Your task to perform on an android device: Go to settings Image 0: 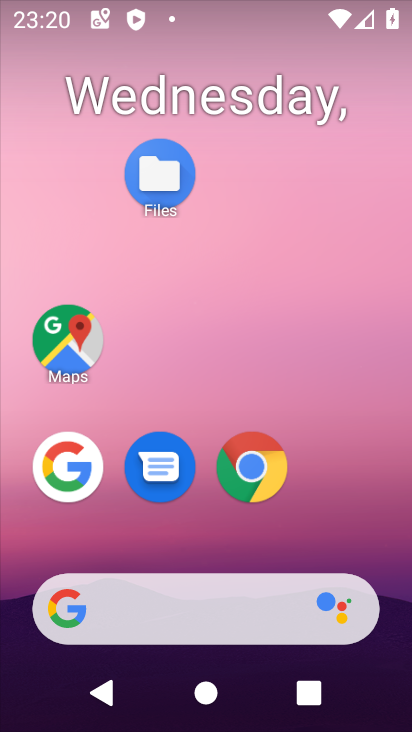
Step 0: drag from (200, 556) to (287, 30)
Your task to perform on an android device: Go to settings Image 1: 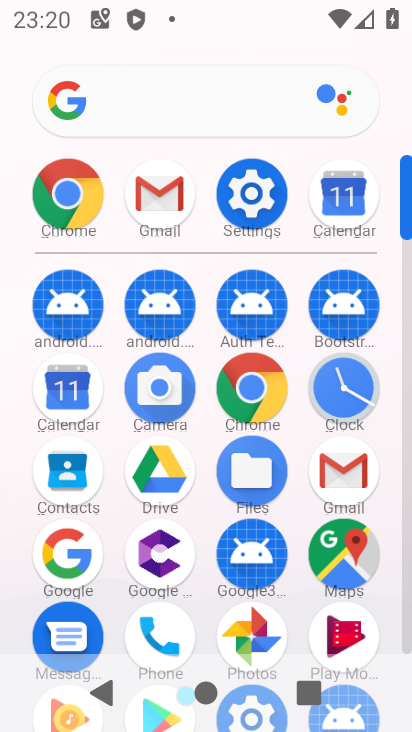
Step 1: click (273, 176)
Your task to perform on an android device: Go to settings Image 2: 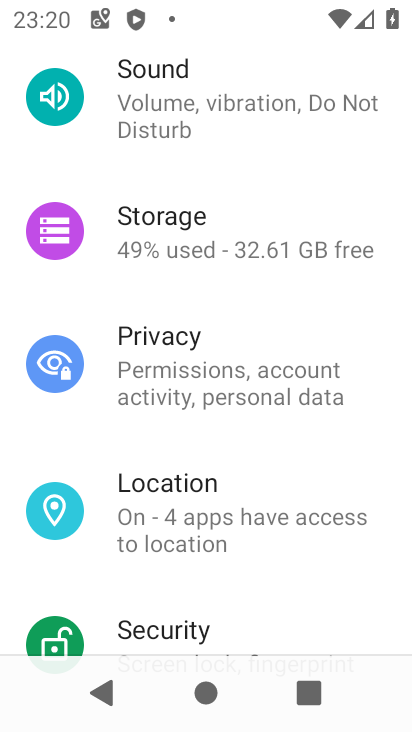
Step 2: click (273, 176)
Your task to perform on an android device: Go to settings Image 3: 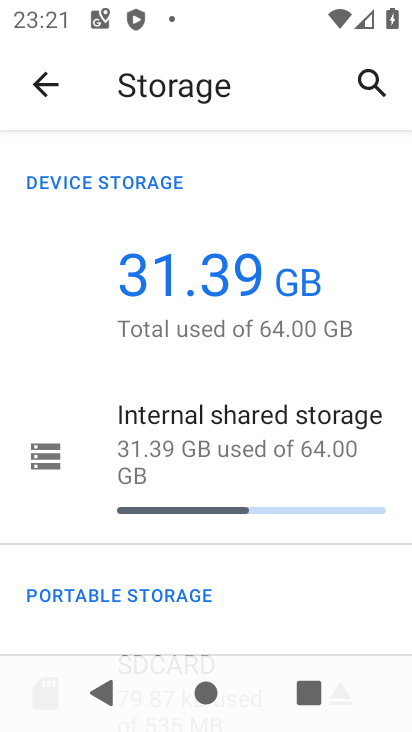
Step 3: click (49, 98)
Your task to perform on an android device: Go to settings Image 4: 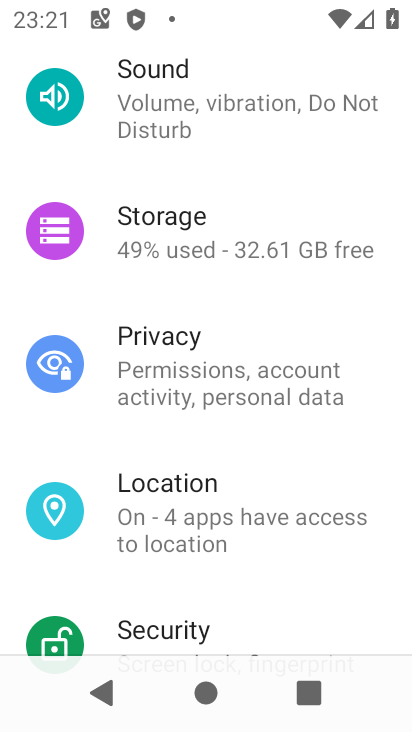
Step 4: task complete